Your task to perform on an android device: Go to Wikipedia Image 0: 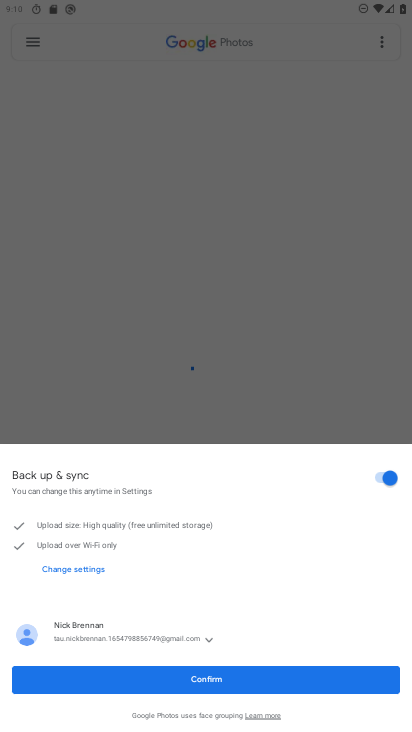
Step 0: press home button
Your task to perform on an android device: Go to Wikipedia Image 1: 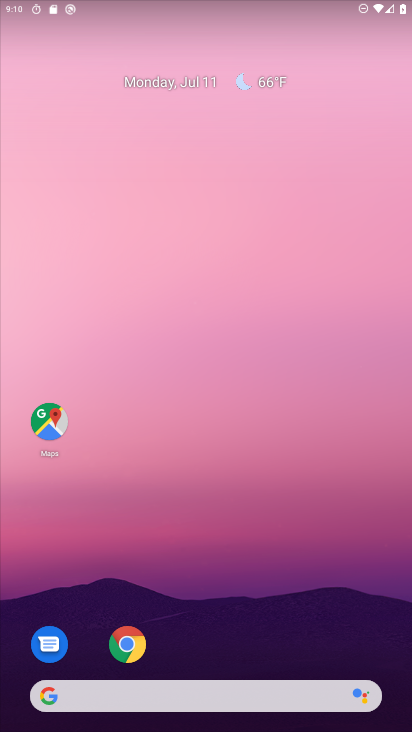
Step 1: drag from (345, 565) to (275, 111)
Your task to perform on an android device: Go to Wikipedia Image 2: 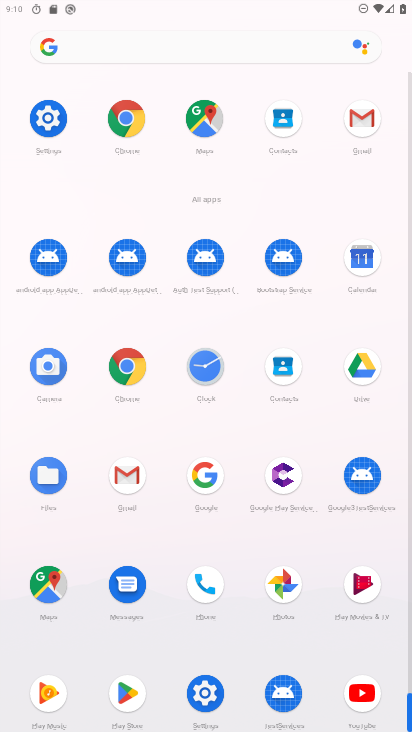
Step 2: click (125, 116)
Your task to perform on an android device: Go to Wikipedia Image 3: 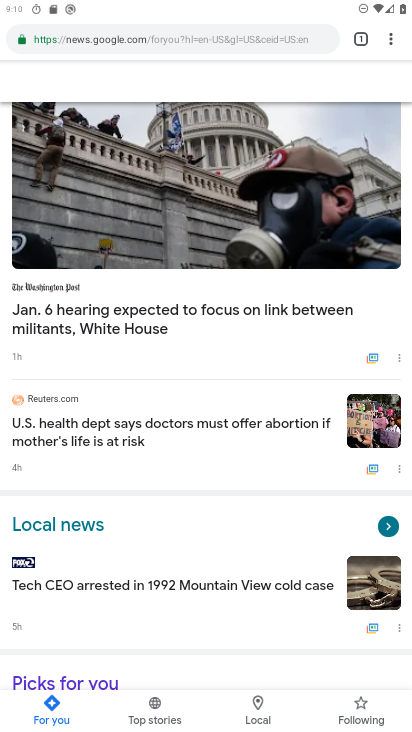
Step 3: click (168, 39)
Your task to perform on an android device: Go to Wikipedia Image 4: 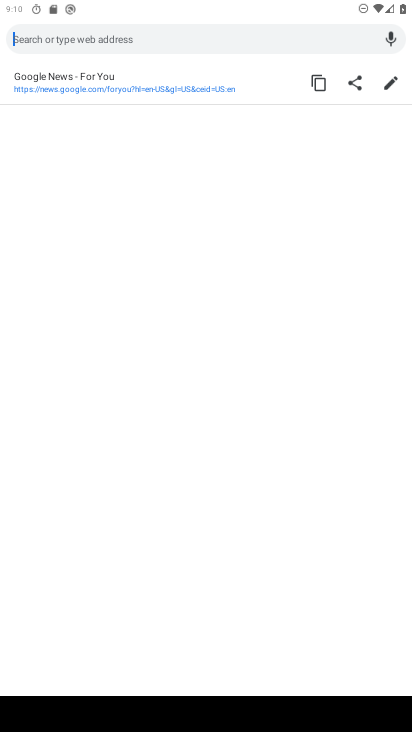
Step 4: type "Wikipedia"
Your task to perform on an android device: Go to Wikipedia Image 5: 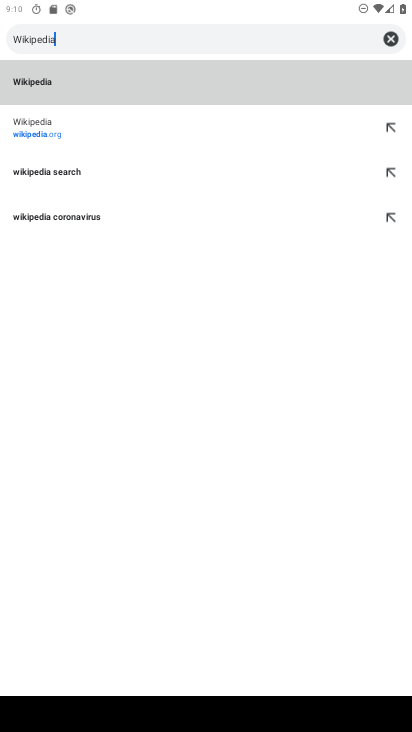
Step 5: click (29, 127)
Your task to perform on an android device: Go to Wikipedia Image 6: 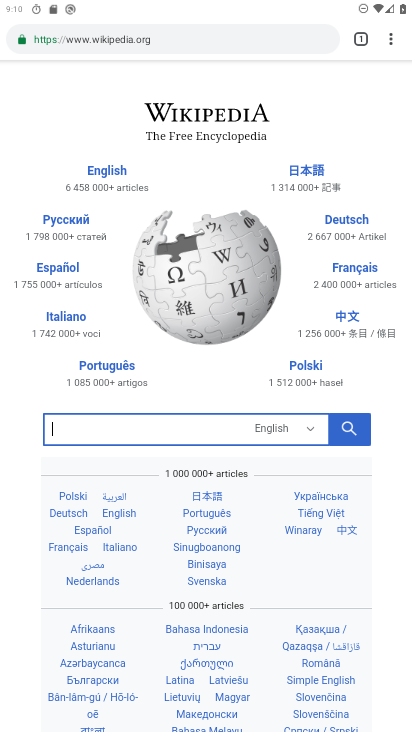
Step 6: task complete